Your task to perform on an android device: check storage Image 0: 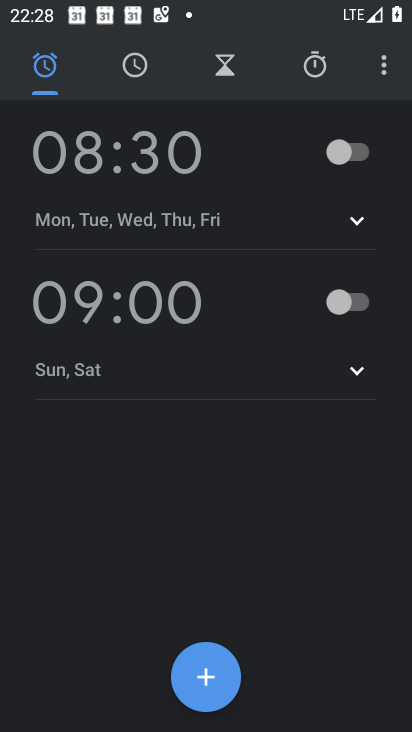
Step 0: press home button
Your task to perform on an android device: check storage Image 1: 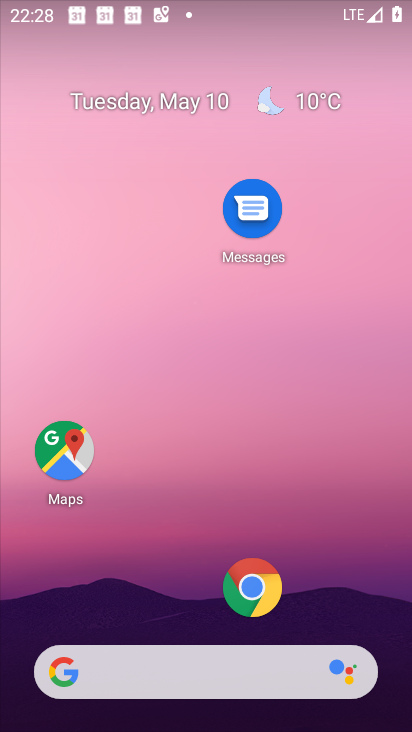
Step 1: drag from (152, 591) to (231, 81)
Your task to perform on an android device: check storage Image 2: 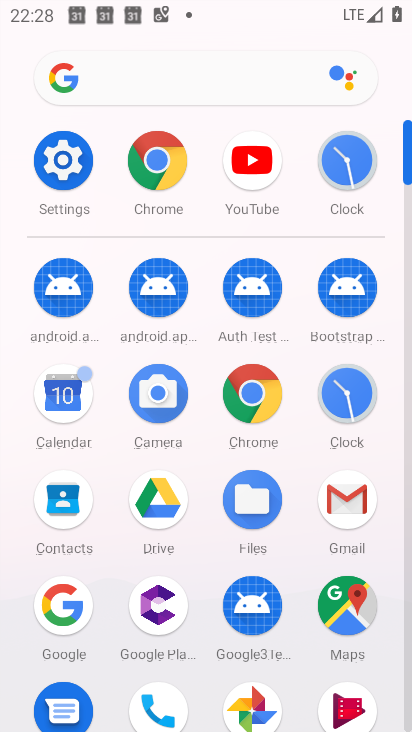
Step 2: click (58, 184)
Your task to perform on an android device: check storage Image 3: 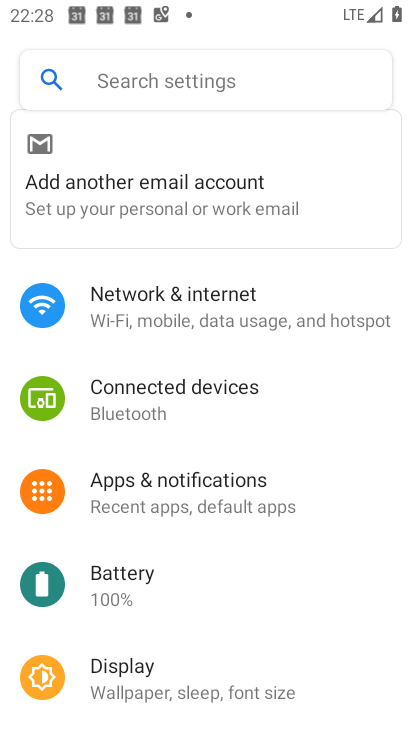
Step 3: drag from (197, 547) to (242, 155)
Your task to perform on an android device: check storage Image 4: 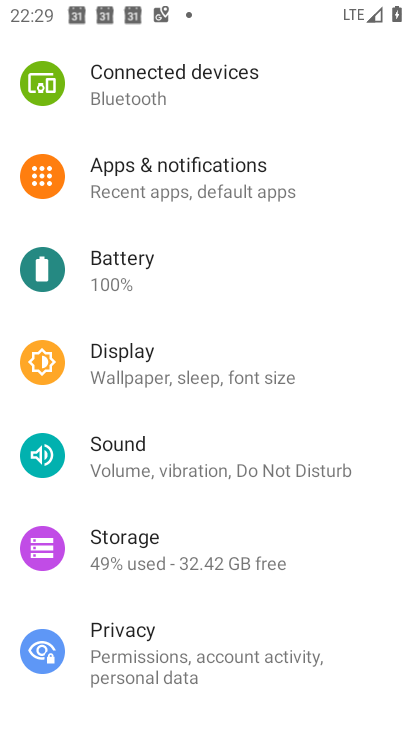
Step 4: click (143, 568)
Your task to perform on an android device: check storage Image 5: 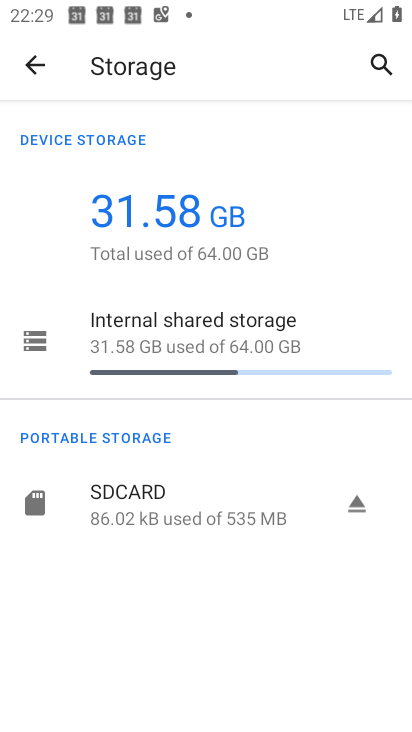
Step 5: click (192, 355)
Your task to perform on an android device: check storage Image 6: 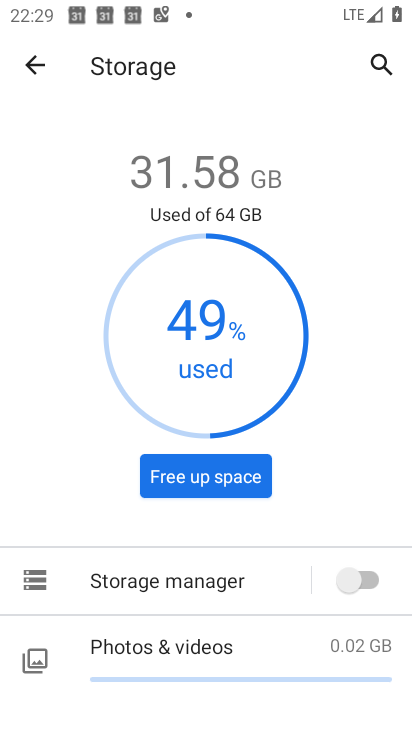
Step 6: task complete